Your task to perform on an android device: What is the average speed of a car? Image 0: 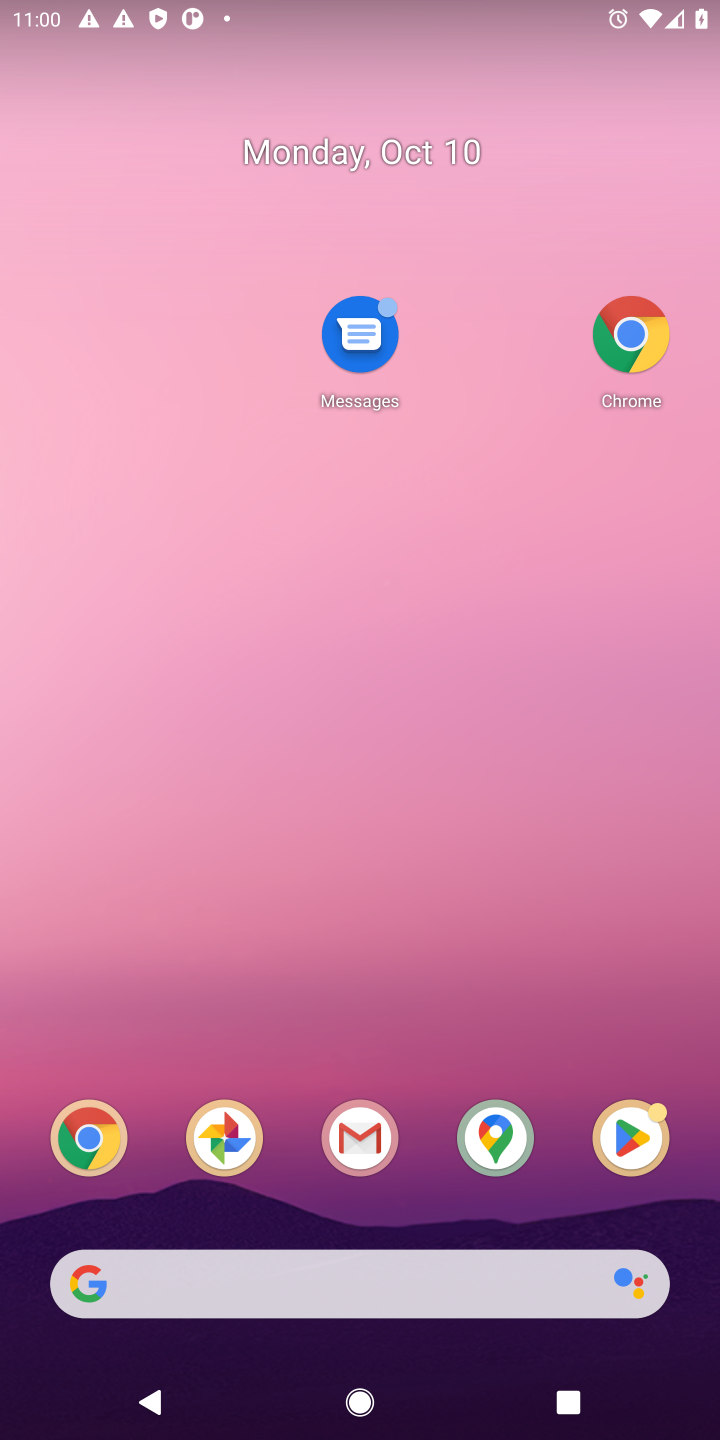
Step 0: click (639, 340)
Your task to perform on an android device: What is the average speed of a car? Image 1: 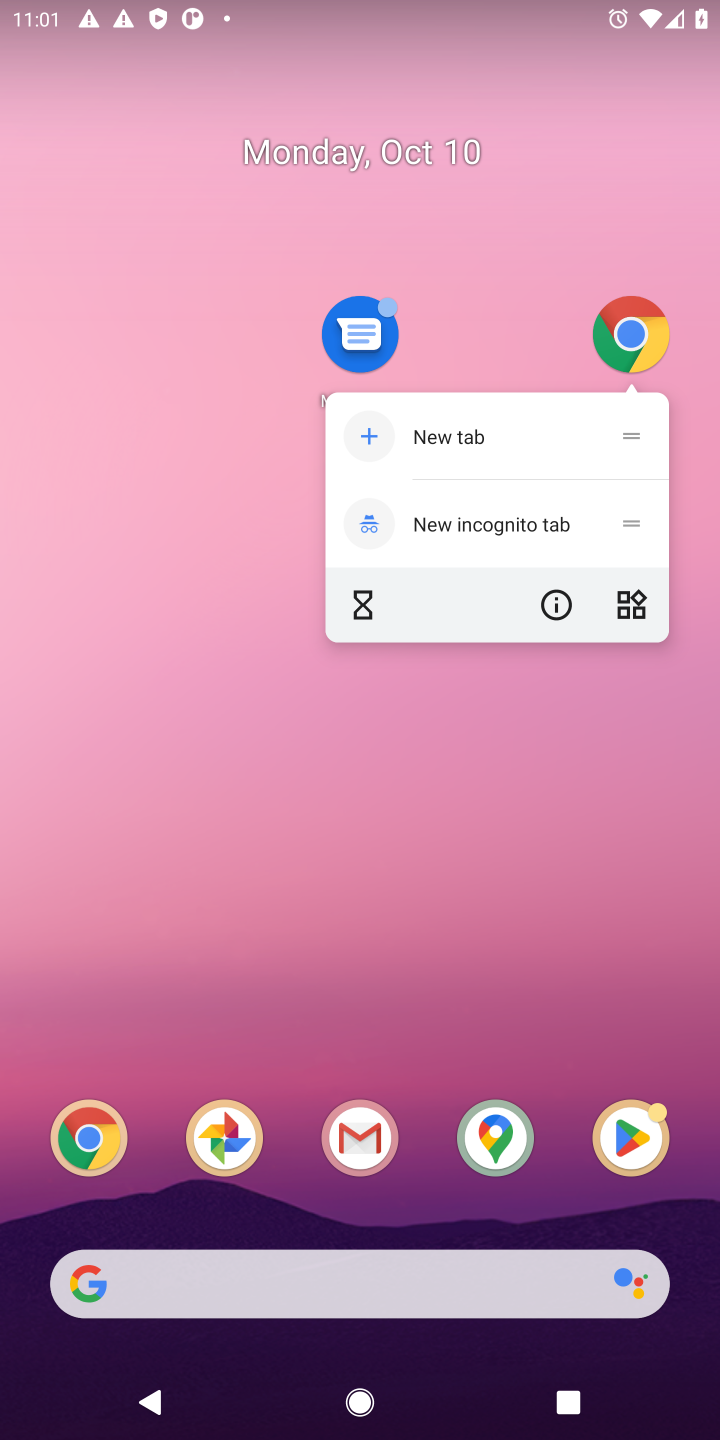
Step 1: click (637, 336)
Your task to perform on an android device: What is the average speed of a car? Image 2: 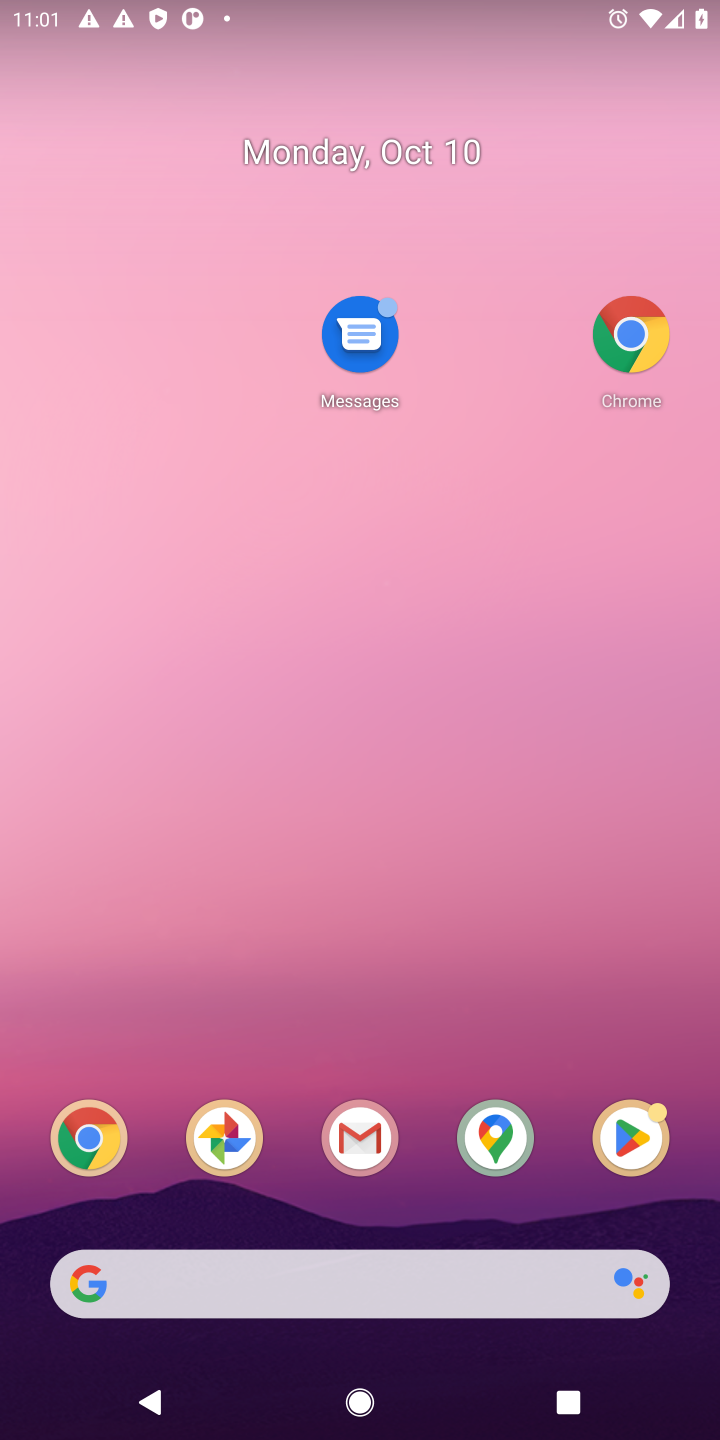
Step 2: click (638, 337)
Your task to perform on an android device: What is the average speed of a car? Image 3: 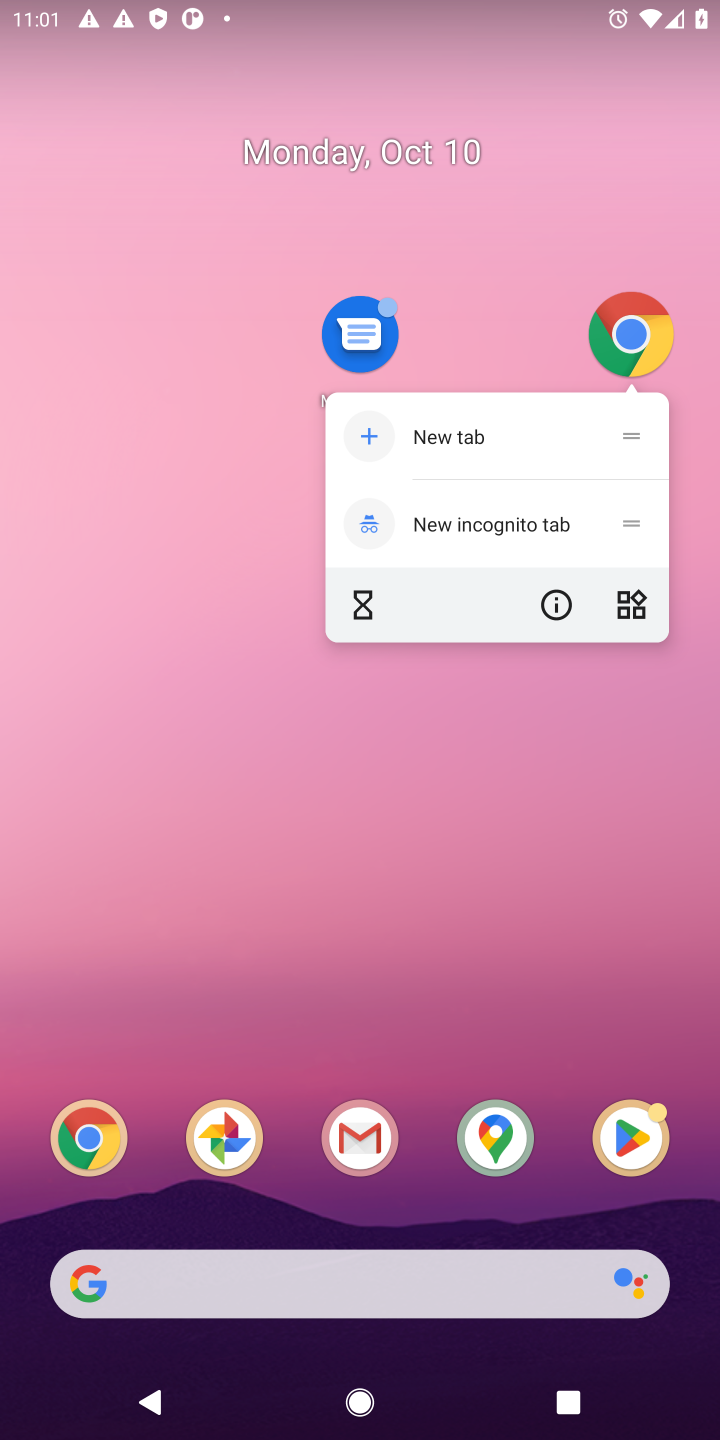
Step 3: click (624, 340)
Your task to perform on an android device: What is the average speed of a car? Image 4: 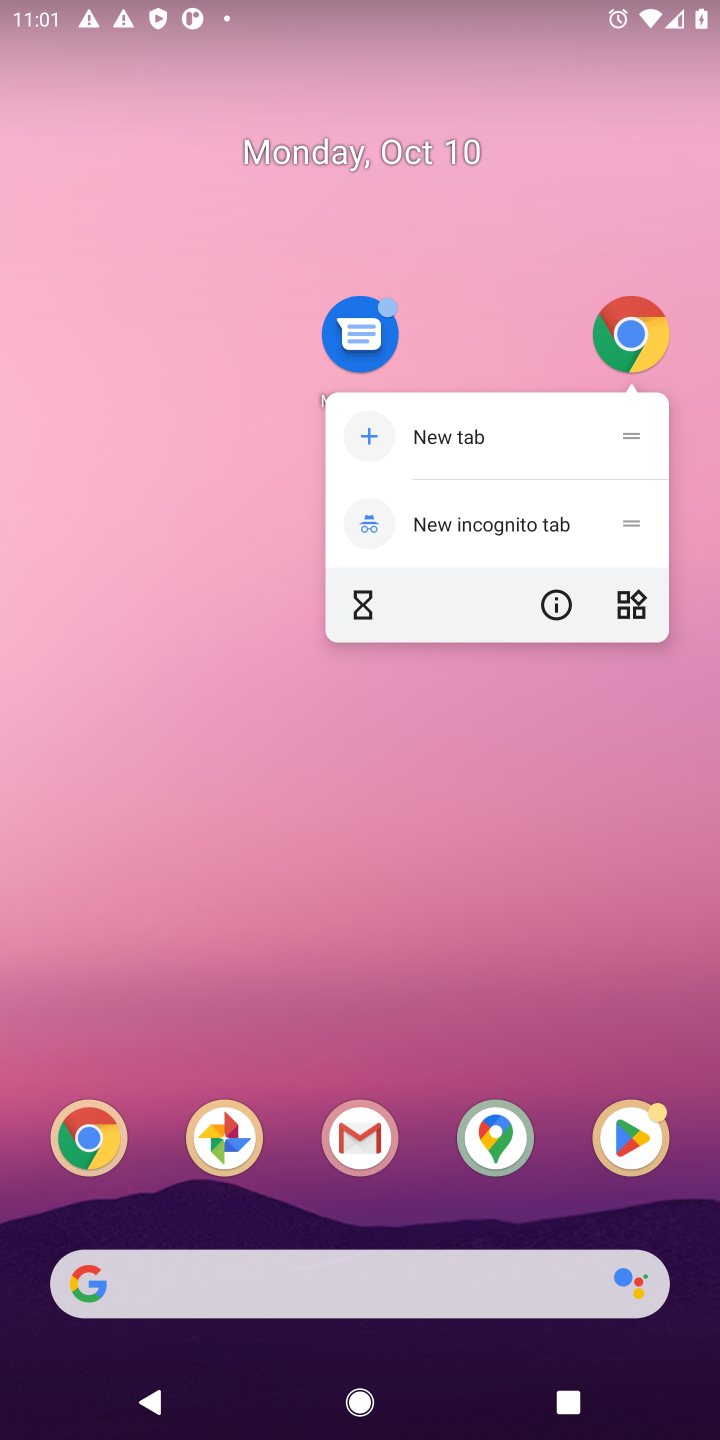
Step 4: click (627, 343)
Your task to perform on an android device: What is the average speed of a car? Image 5: 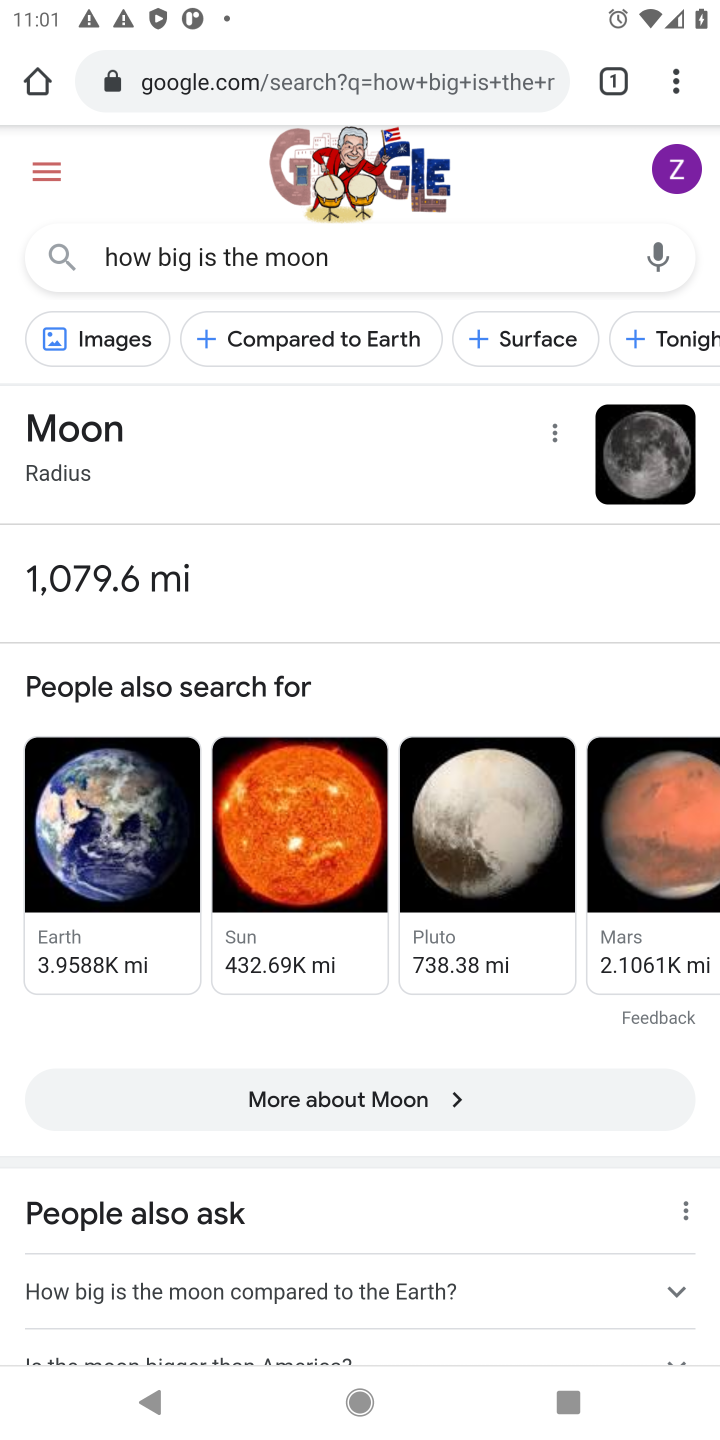
Step 5: click (455, 100)
Your task to perform on an android device: What is the average speed of a car? Image 6: 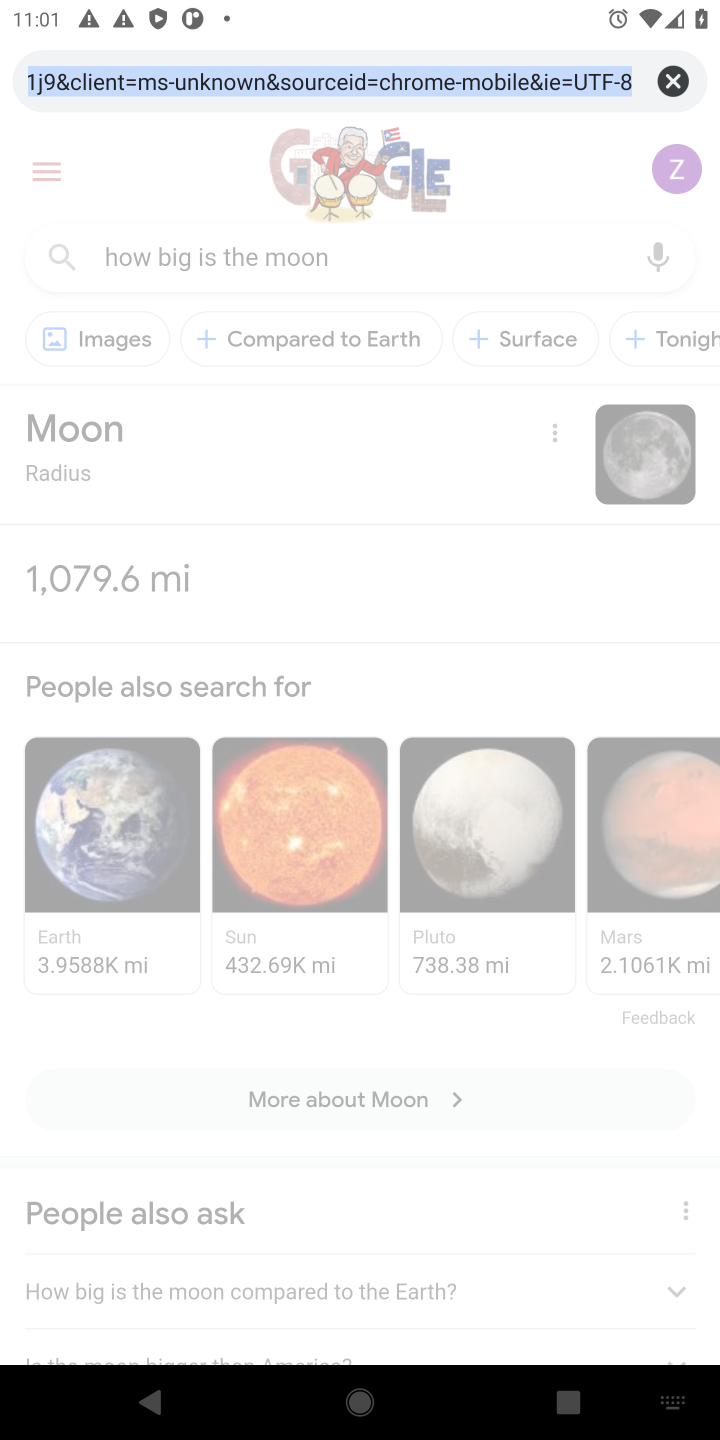
Step 6: type "average speed of a car"
Your task to perform on an android device: What is the average speed of a car? Image 7: 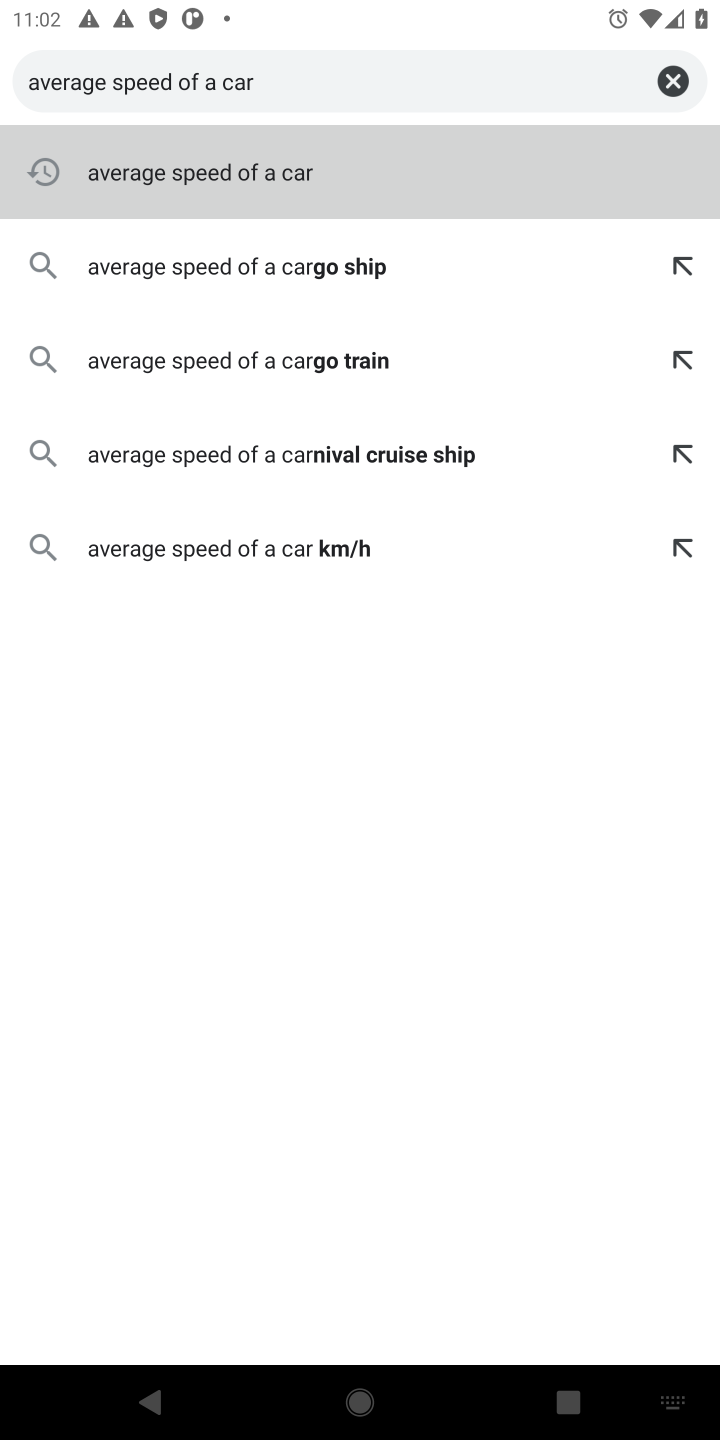
Step 7: press enter
Your task to perform on an android device: What is the average speed of a car? Image 8: 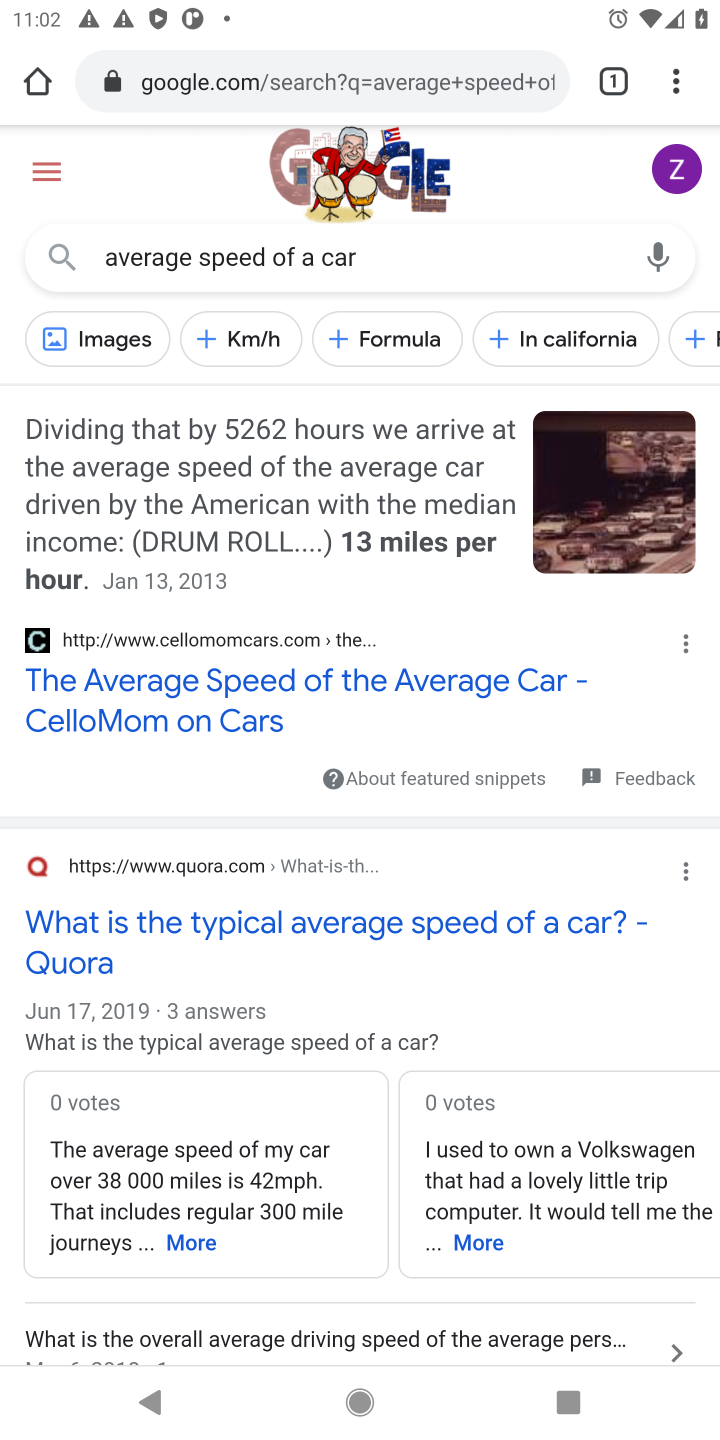
Step 8: task complete